Your task to perform on an android device: change timer sound Image 0: 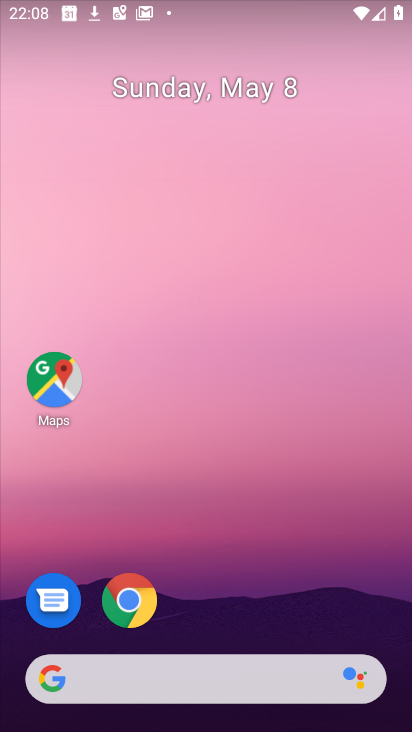
Step 0: drag from (237, 705) to (243, 289)
Your task to perform on an android device: change timer sound Image 1: 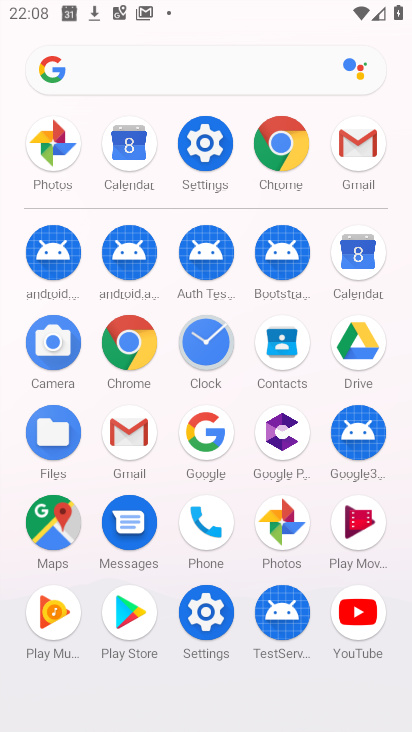
Step 1: click (202, 354)
Your task to perform on an android device: change timer sound Image 2: 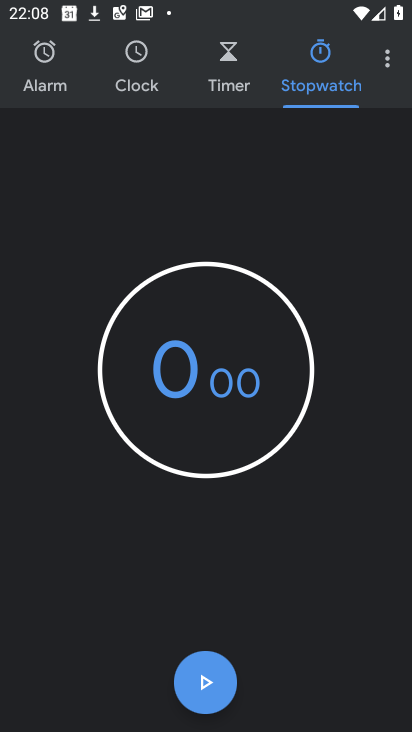
Step 2: click (390, 65)
Your task to perform on an android device: change timer sound Image 3: 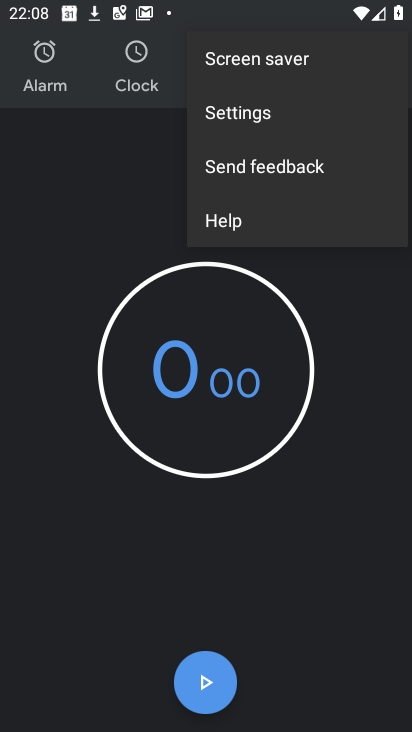
Step 3: click (264, 129)
Your task to perform on an android device: change timer sound Image 4: 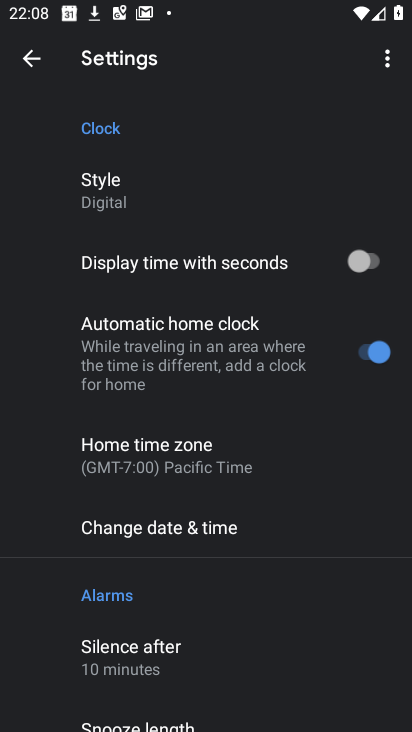
Step 4: drag from (231, 617) to (296, 224)
Your task to perform on an android device: change timer sound Image 5: 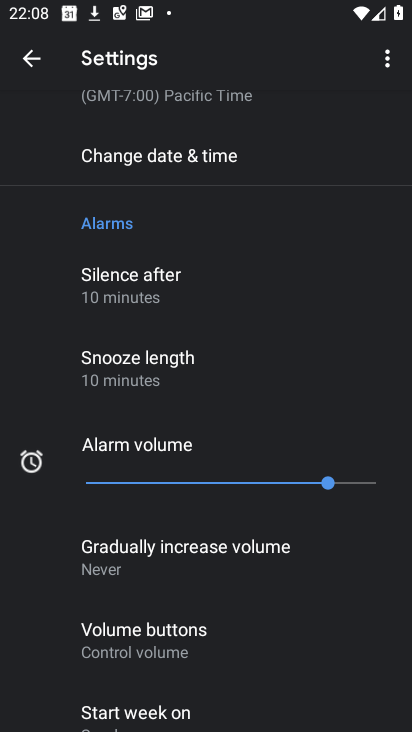
Step 5: drag from (190, 631) to (276, 384)
Your task to perform on an android device: change timer sound Image 6: 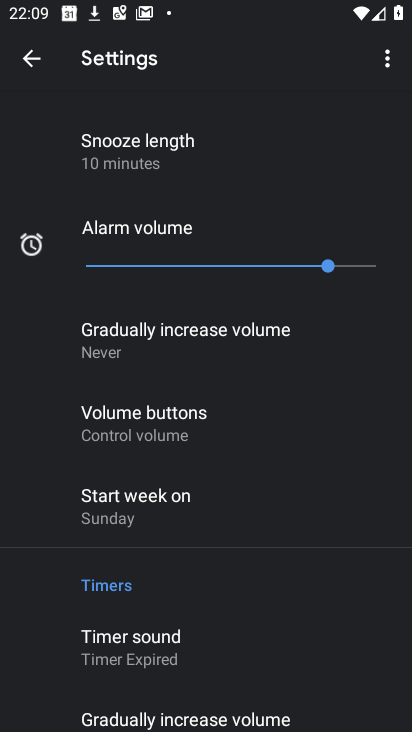
Step 6: click (183, 642)
Your task to perform on an android device: change timer sound Image 7: 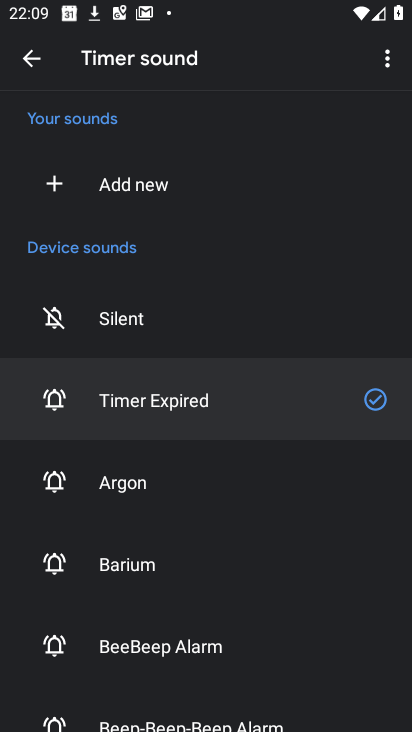
Step 7: click (150, 640)
Your task to perform on an android device: change timer sound Image 8: 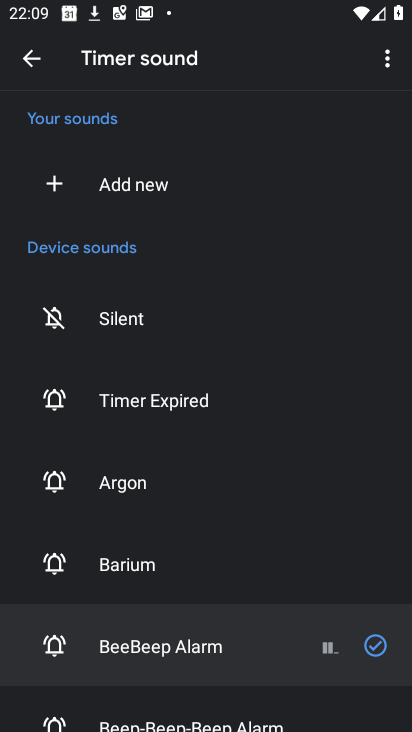
Step 8: task complete